Your task to perform on an android device: Open privacy settings Image 0: 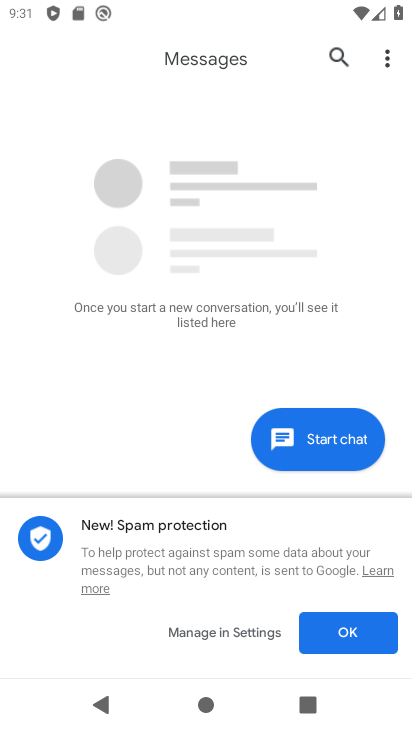
Step 0: press back button
Your task to perform on an android device: Open privacy settings Image 1: 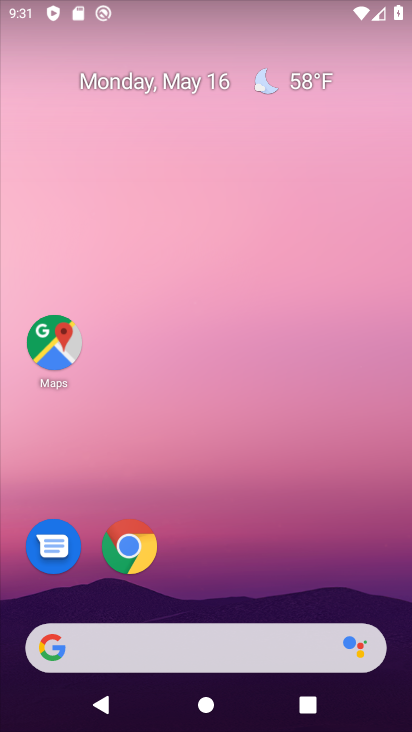
Step 1: drag from (249, 543) to (248, 103)
Your task to perform on an android device: Open privacy settings Image 2: 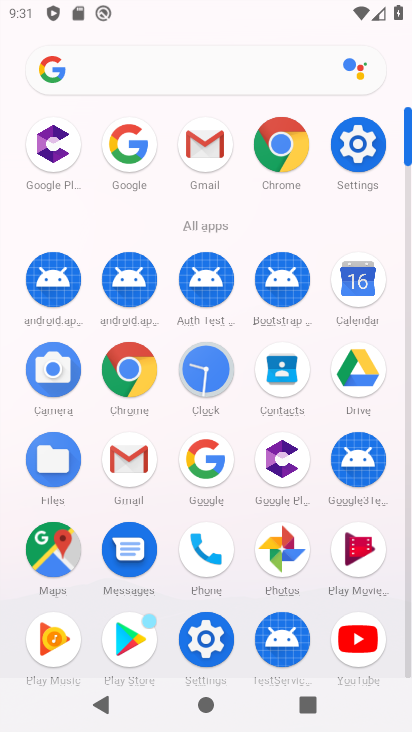
Step 2: click (361, 146)
Your task to perform on an android device: Open privacy settings Image 3: 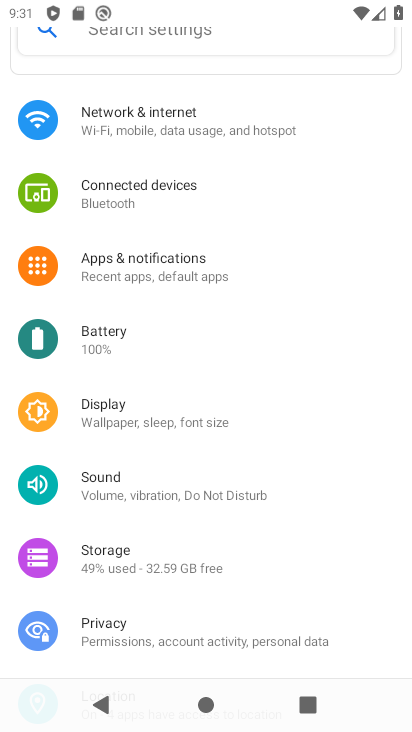
Step 3: click (168, 643)
Your task to perform on an android device: Open privacy settings Image 4: 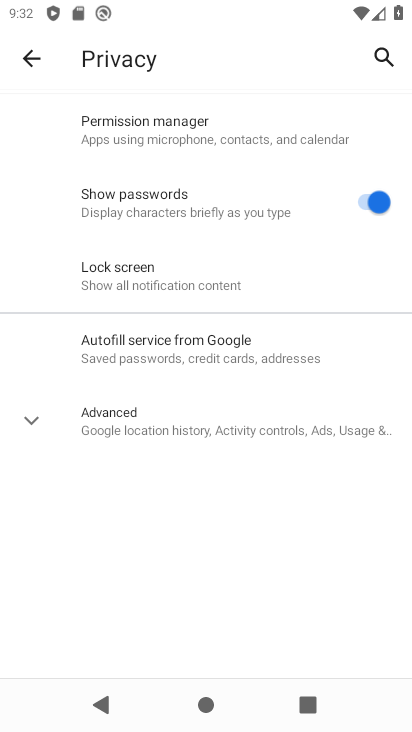
Step 4: task complete